Your task to perform on an android device: open app "Messenger Lite" Image 0: 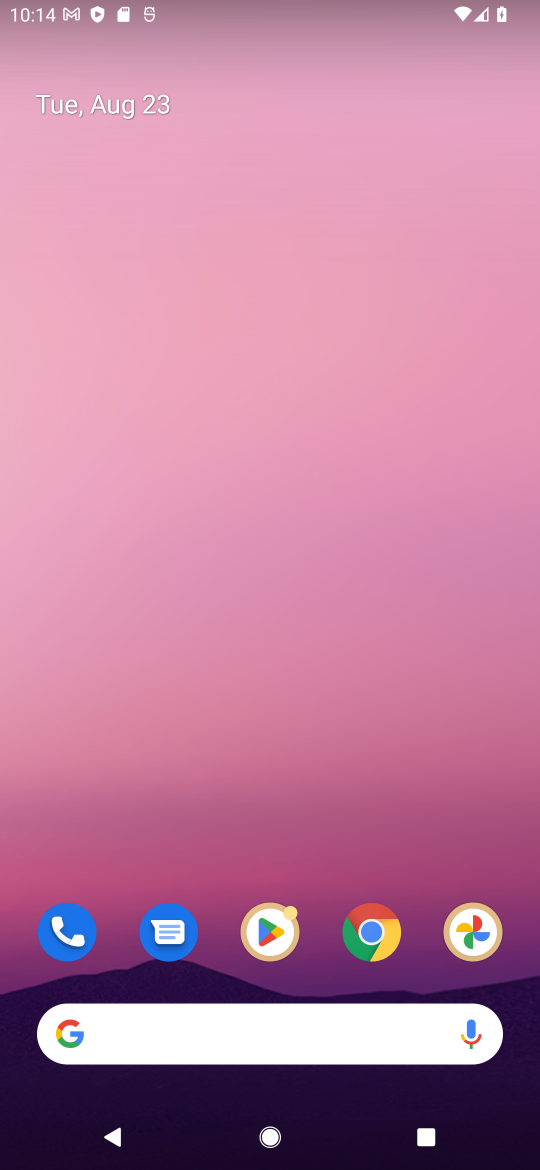
Step 0: click (278, 966)
Your task to perform on an android device: open app "Messenger Lite" Image 1: 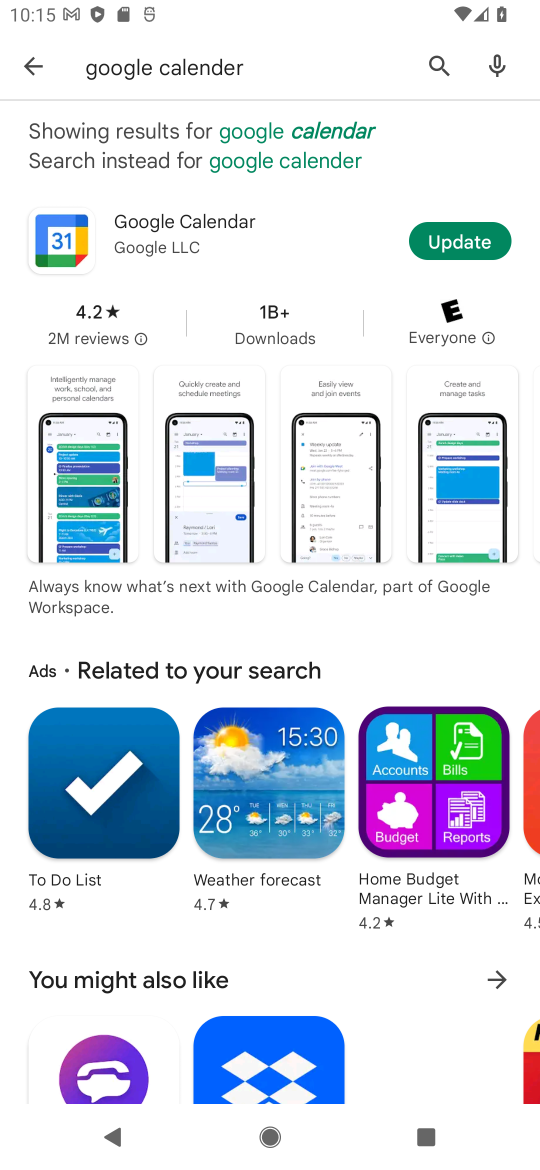
Step 1: click (450, 72)
Your task to perform on an android device: open app "Messenger Lite" Image 2: 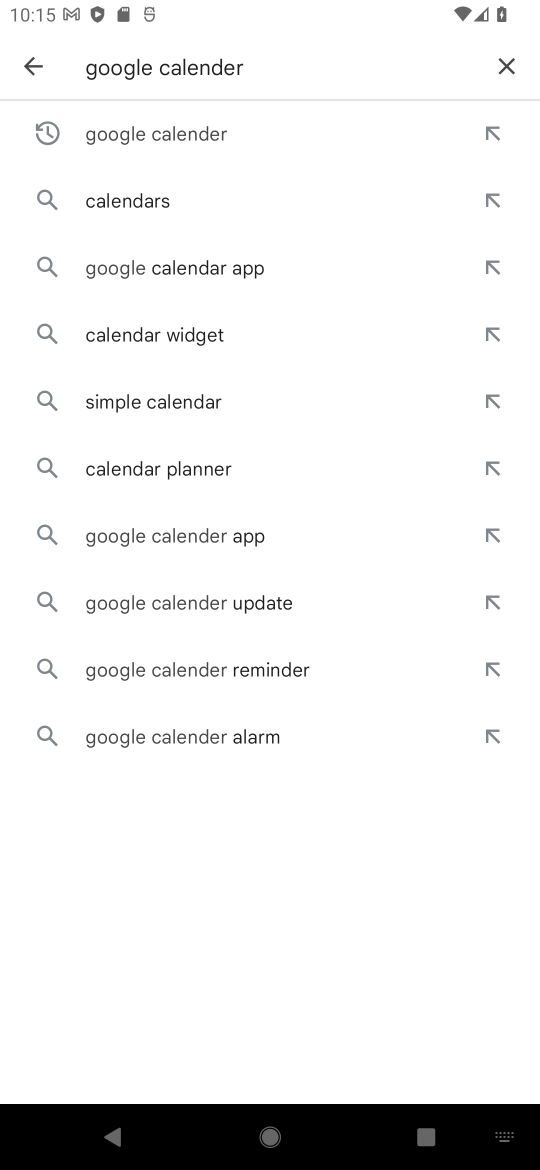
Step 2: click (508, 58)
Your task to perform on an android device: open app "Messenger Lite" Image 3: 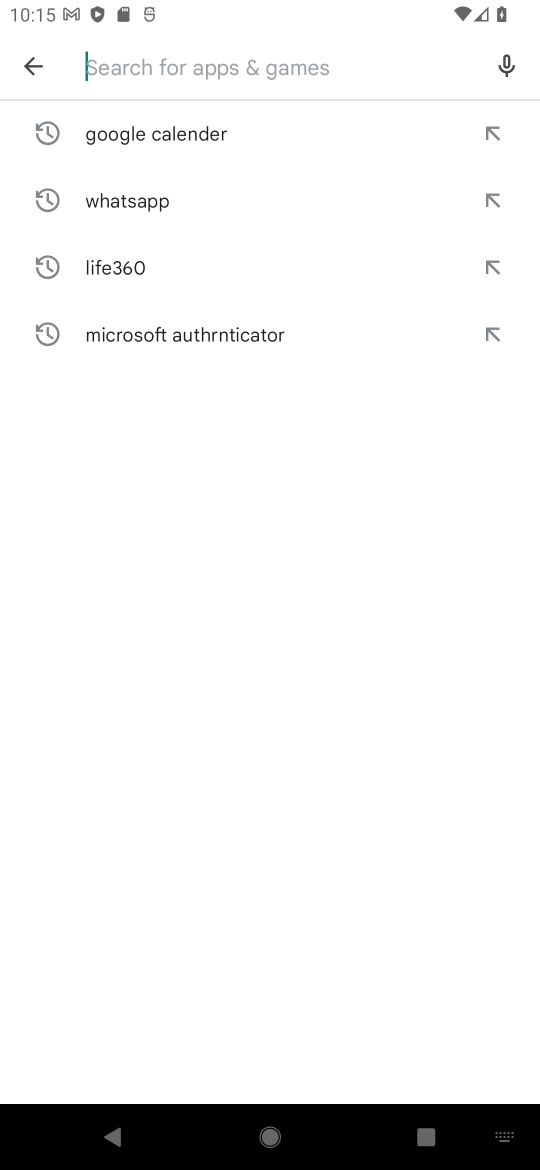
Step 3: type "messenger lite"
Your task to perform on an android device: open app "Messenger Lite" Image 4: 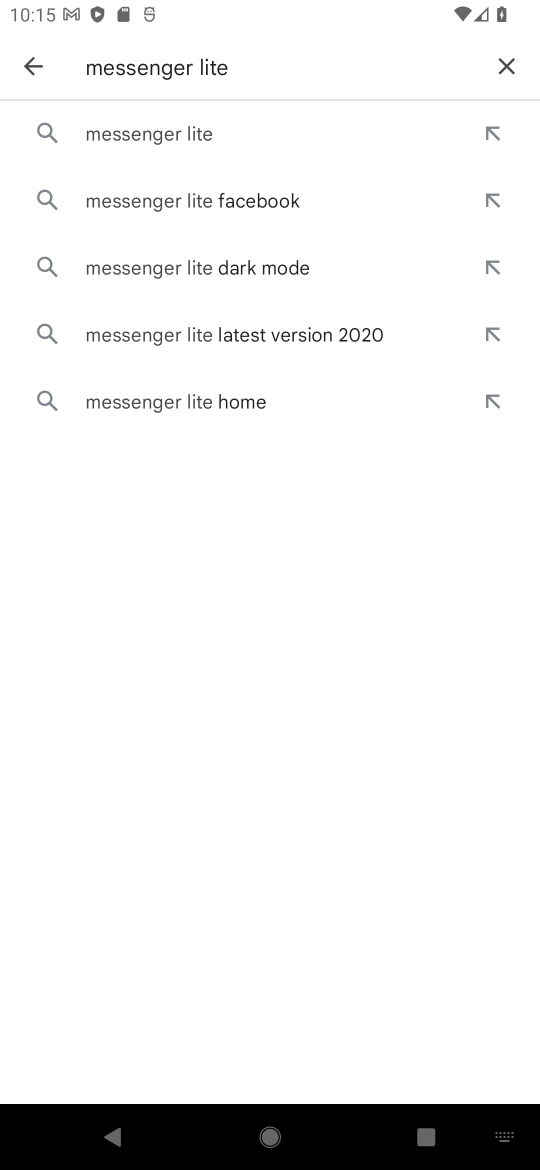
Step 4: click (158, 121)
Your task to perform on an android device: open app "Messenger Lite" Image 5: 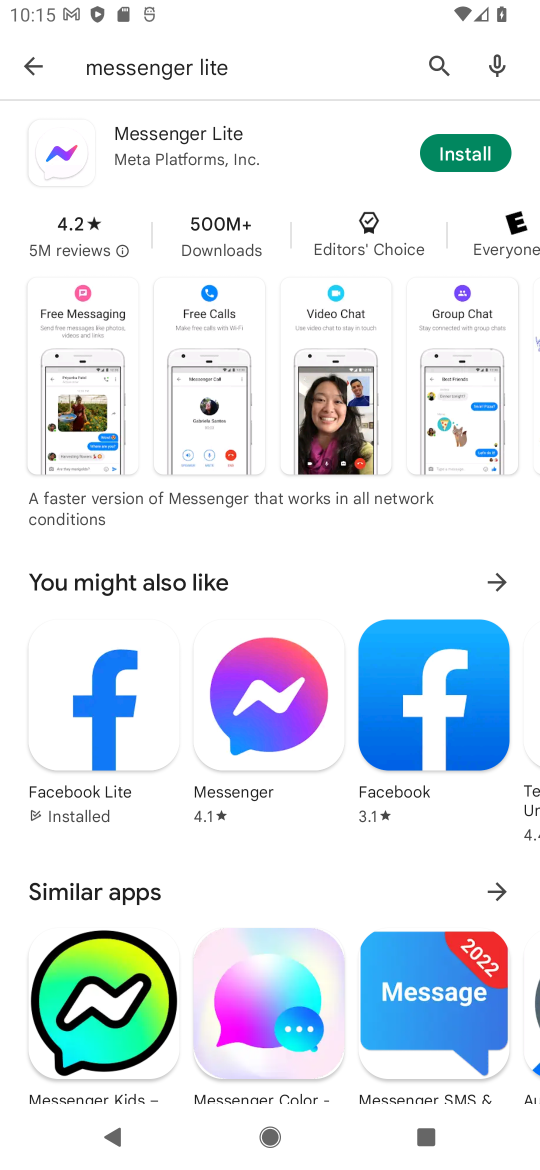
Step 5: task complete